Your task to perform on an android device: allow cookies in the chrome app Image 0: 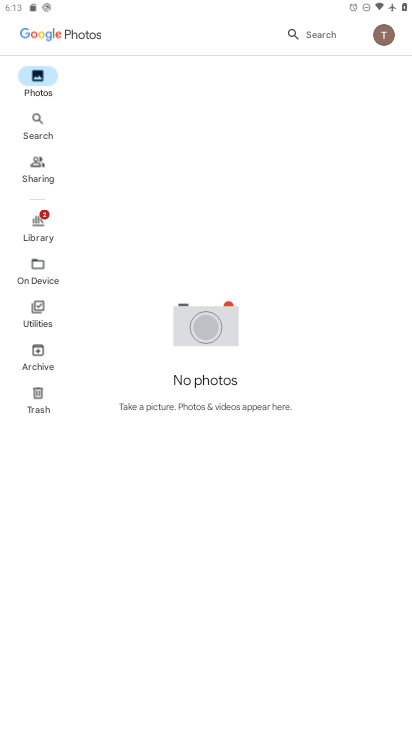
Step 0: press home button
Your task to perform on an android device: allow cookies in the chrome app Image 1: 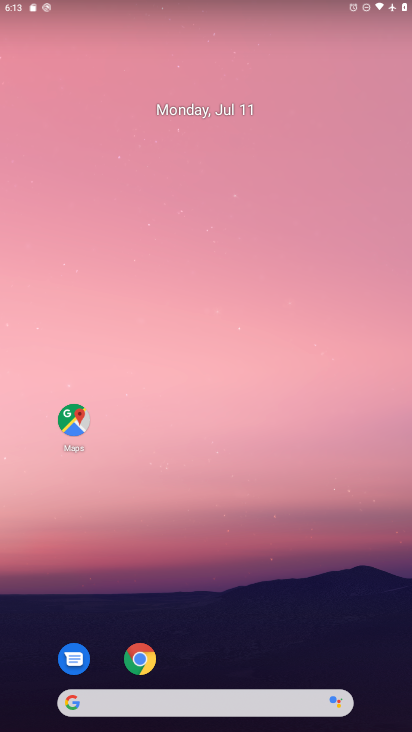
Step 1: click (140, 660)
Your task to perform on an android device: allow cookies in the chrome app Image 2: 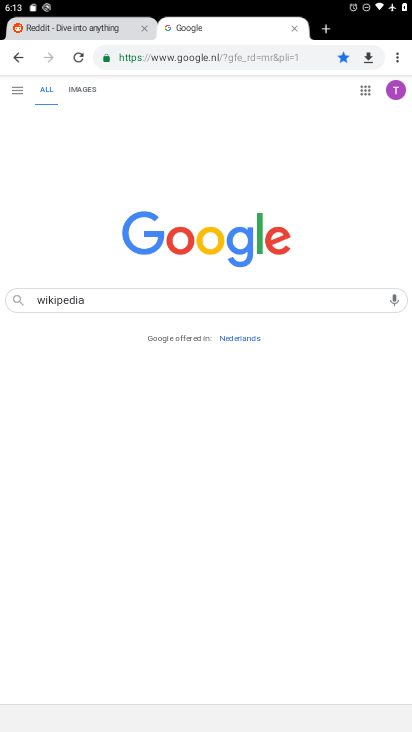
Step 2: click (395, 61)
Your task to perform on an android device: allow cookies in the chrome app Image 3: 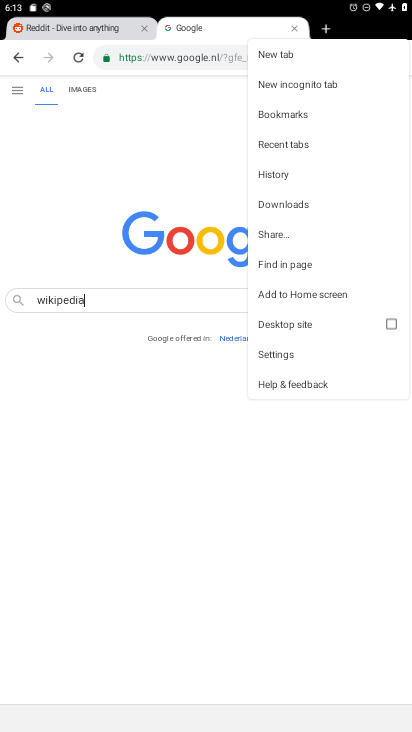
Step 3: click (280, 351)
Your task to perform on an android device: allow cookies in the chrome app Image 4: 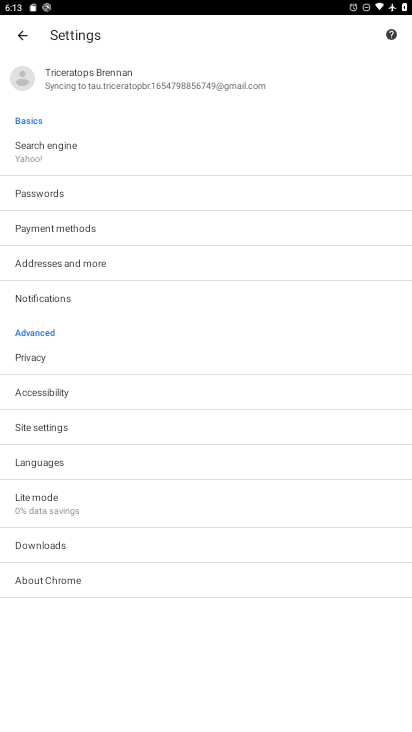
Step 4: click (41, 419)
Your task to perform on an android device: allow cookies in the chrome app Image 5: 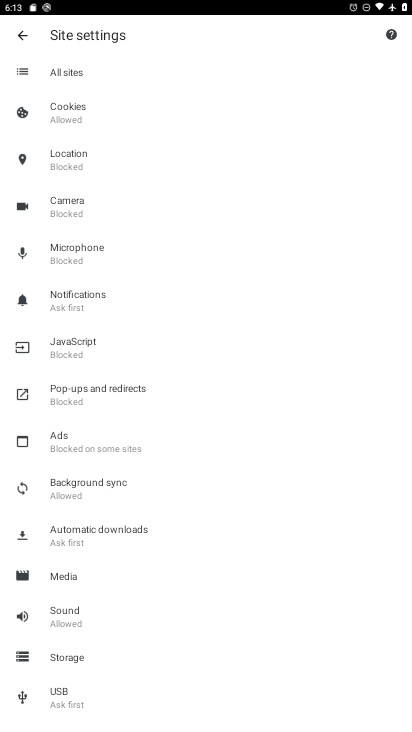
Step 5: click (65, 108)
Your task to perform on an android device: allow cookies in the chrome app Image 6: 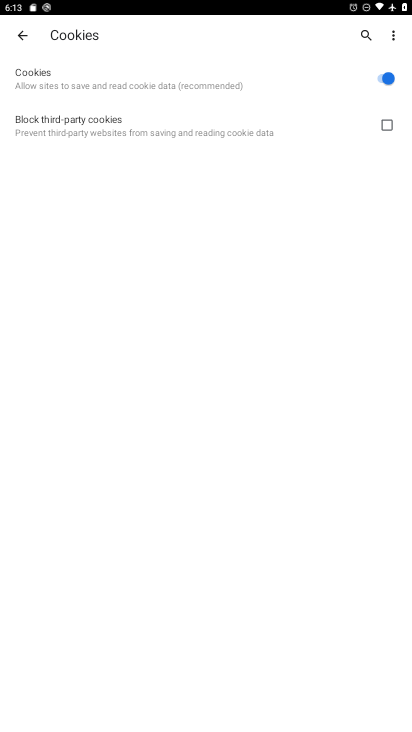
Step 6: task complete